Your task to perform on an android device: Go to Wikipedia Image 0: 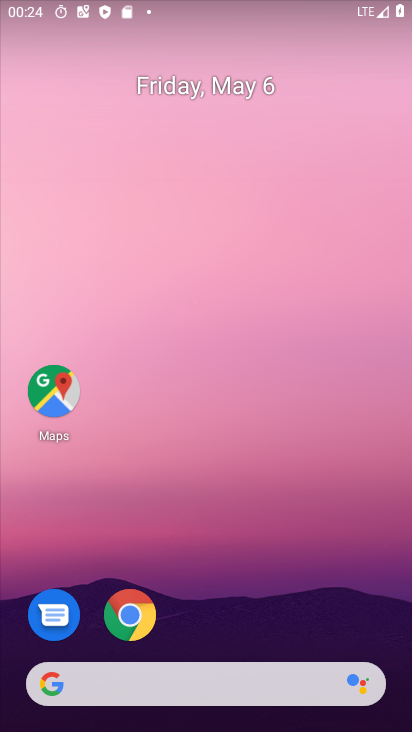
Step 0: click (128, 616)
Your task to perform on an android device: Go to Wikipedia Image 1: 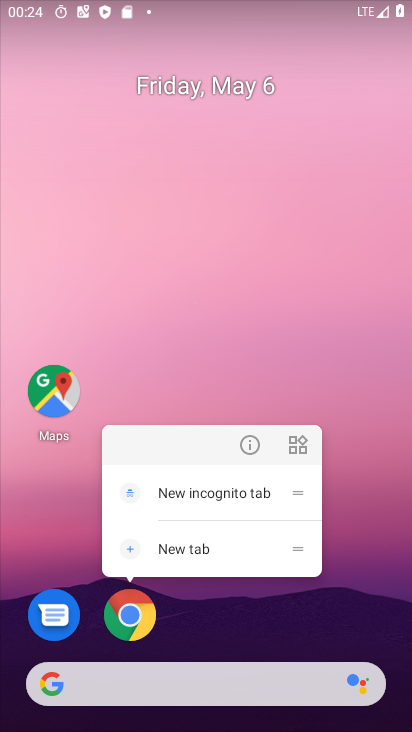
Step 1: click (127, 620)
Your task to perform on an android device: Go to Wikipedia Image 2: 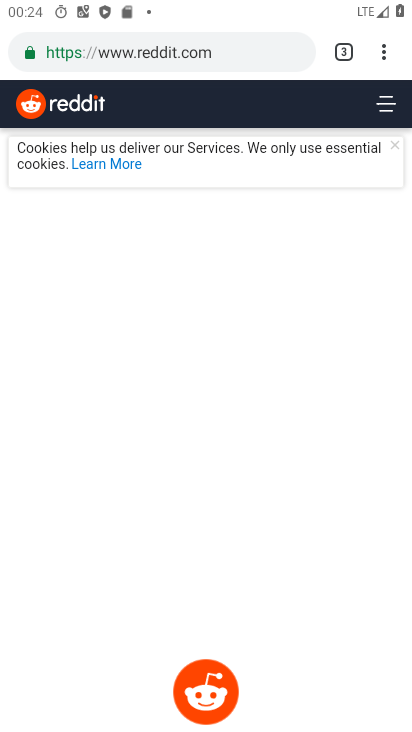
Step 2: task complete